Your task to perform on an android device: turn smart compose on in the gmail app Image 0: 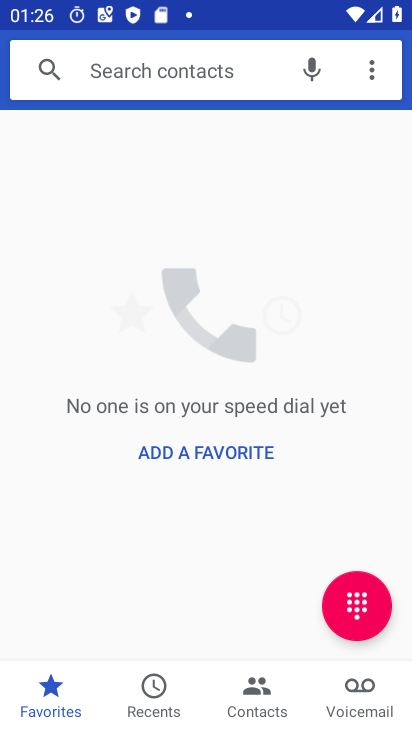
Step 0: press home button
Your task to perform on an android device: turn smart compose on in the gmail app Image 1: 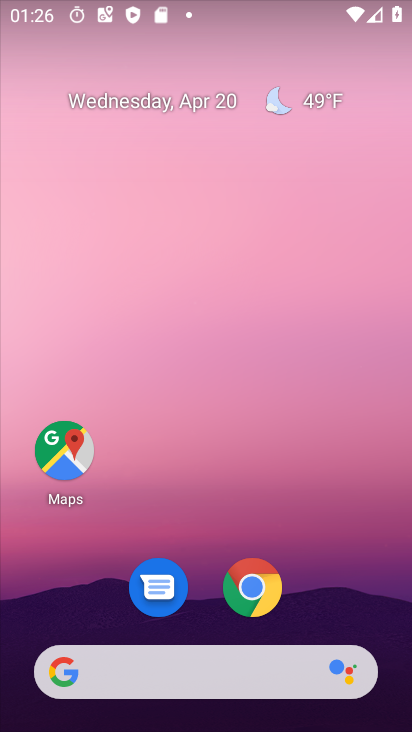
Step 1: drag from (335, 619) to (331, 26)
Your task to perform on an android device: turn smart compose on in the gmail app Image 2: 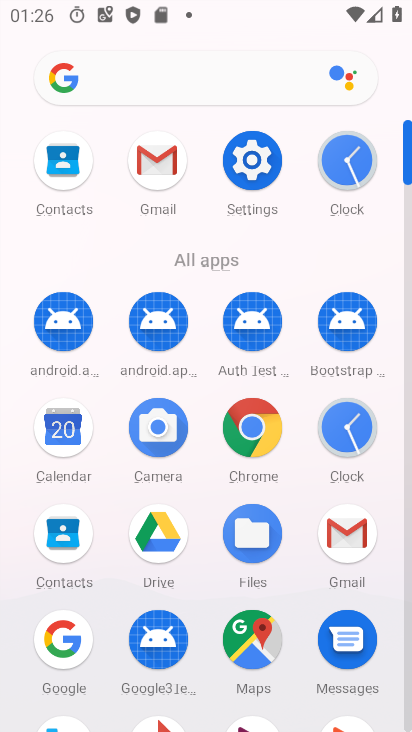
Step 2: click (153, 164)
Your task to perform on an android device: turn smart compose on in the gmail app Image 3: 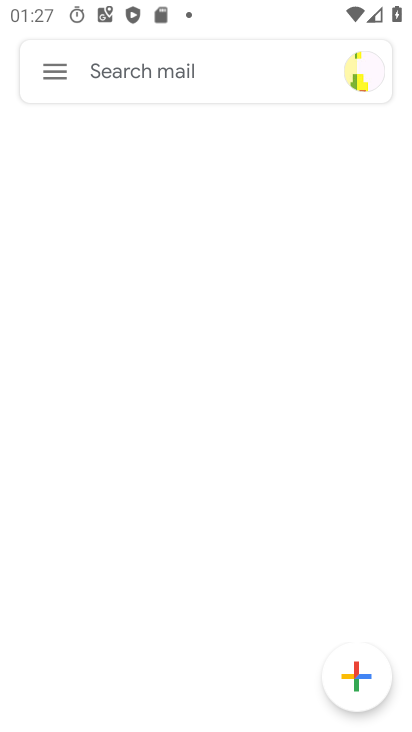
Step 3: click (52, 77)
Your task to perform on an android device: turn smart compose on in the gmail app Image 4: 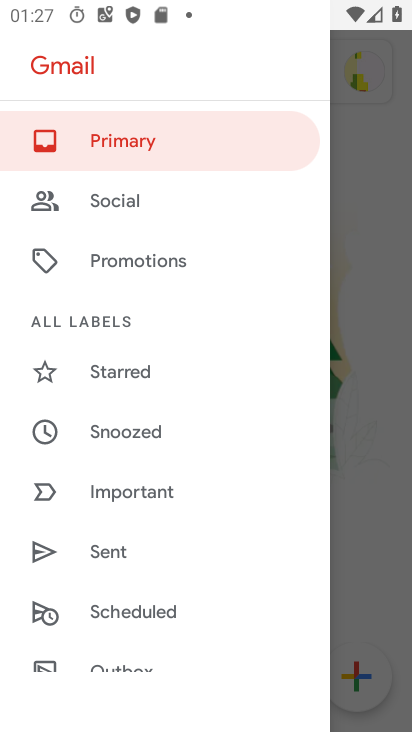
Step 4: drag from (160, 555) to (144, 151)
Your task to perform on an android device: turn smart compose on in the gmail app Image 5: 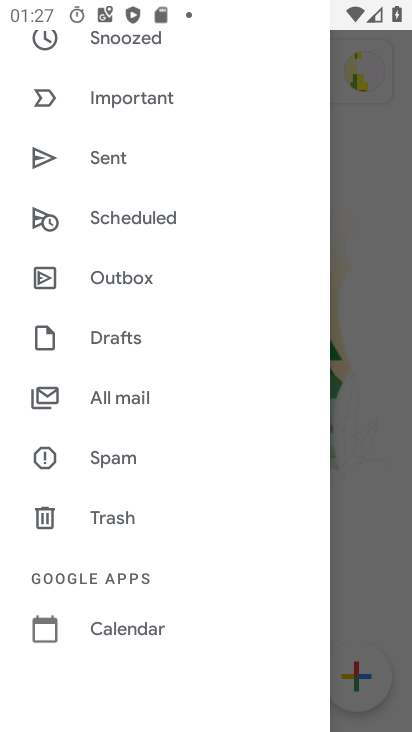
Step 5: drag from (210, 595) to (185, 346)
Your task to perform on an android device: turn smart compose on in the gmail app Image 6: 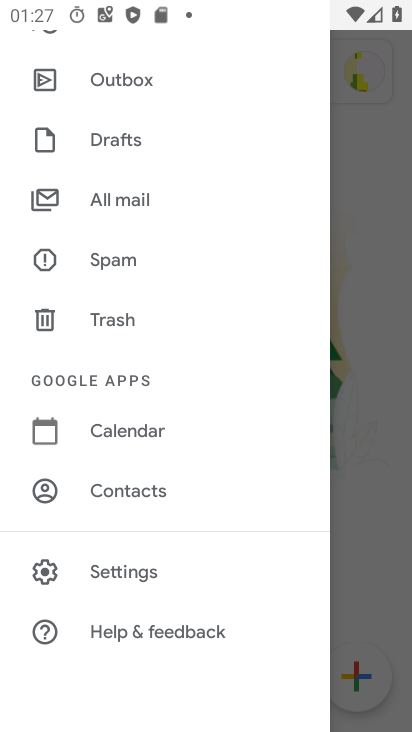
Step 6: click (118, 568)
Your task to perform on an android device: turn smart compose on in the gmail app Image 7: 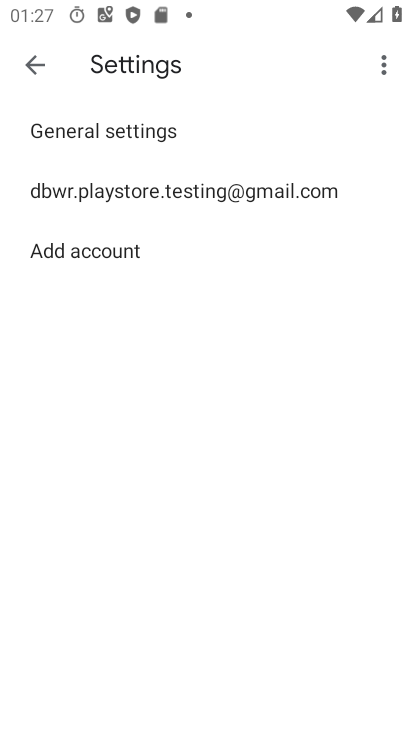
Step 7: click (115, 196)
Your task to perform on an android device: turn smart compose on in the gmail app Image 8: 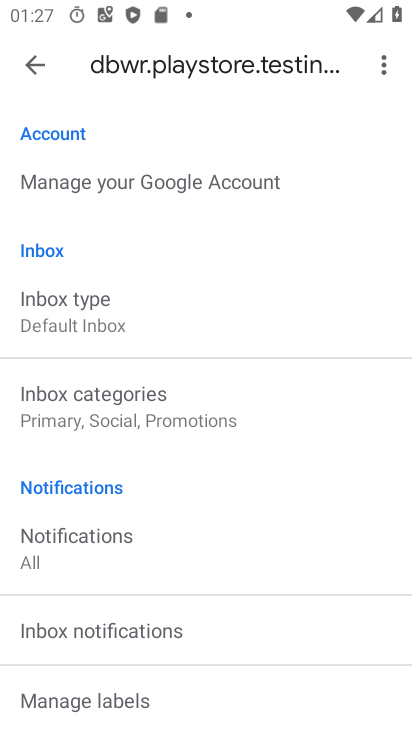
Step 8: task complete